Your task to perform on an android device: turn off improve location accuracy Image 0: 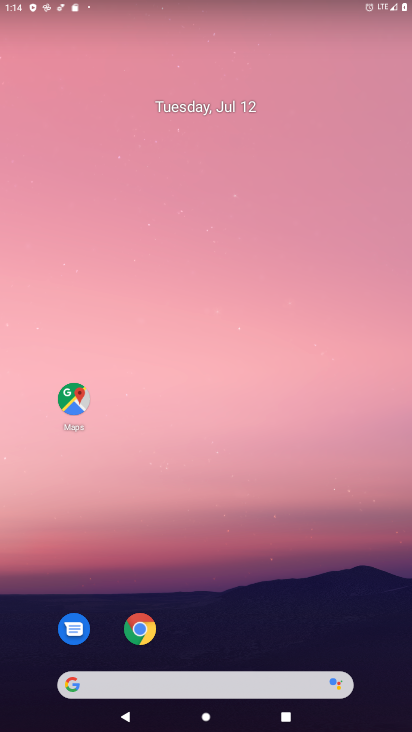
Step 0: drag from (273, 681) to (269, 125)
Your task to perform on an android device: turn off improve location accuracy Image 1: 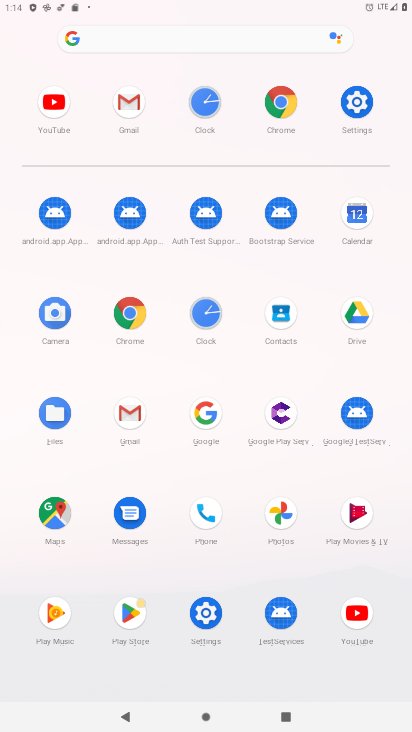
Step 1: click (348, 98)
Your task to perform on an android device: turn off improve location accuracy Image 2: 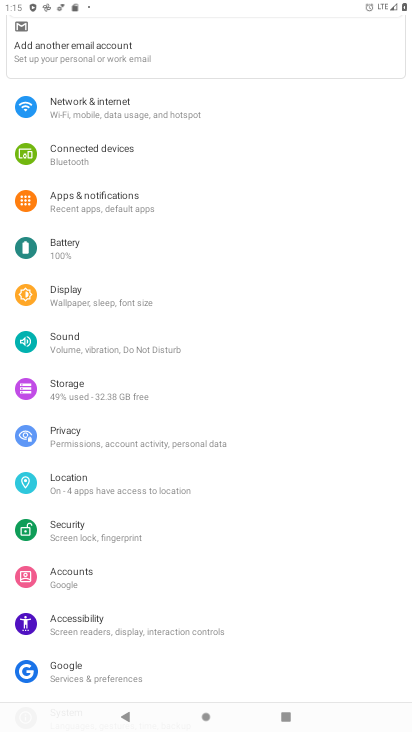
Step 2: click (129, 479)
Your task to perform on an android device: turn off improve location accuracy Image 3: 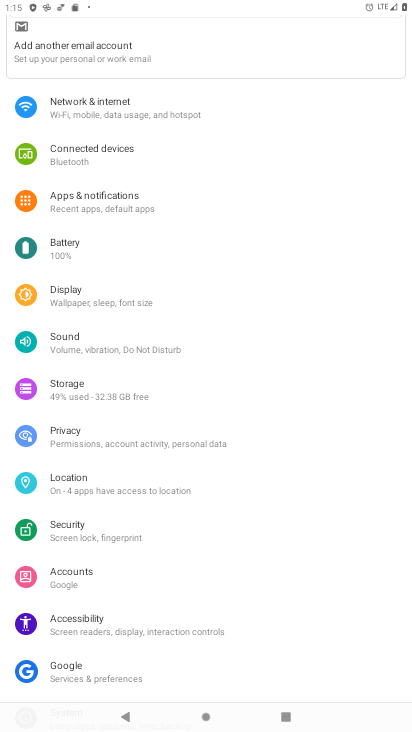
Step 3: click (108, 491)
Your task to perform on an android device: turn off improve location accuracy Image 4: 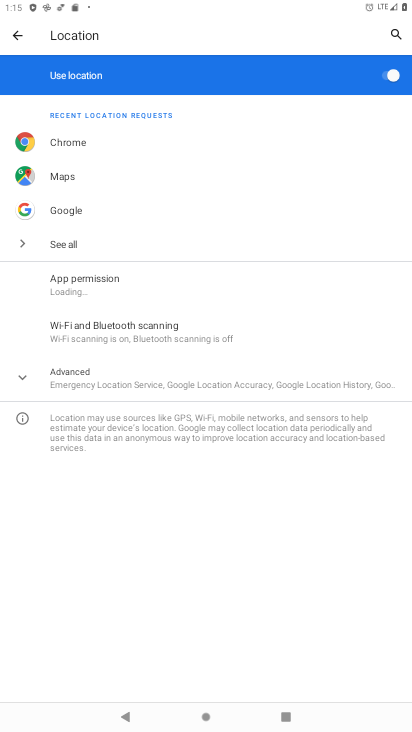
Step 4: click (134, 373)
Your task to perform on an android device: turn off improve location accuracy Image 5: 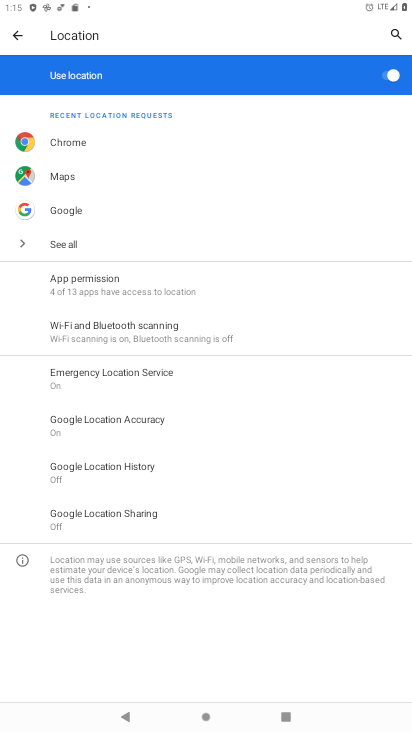
Step 5: click (143, 411)
Your task to perform on an android device: turn off improve location accuracy Image 6: 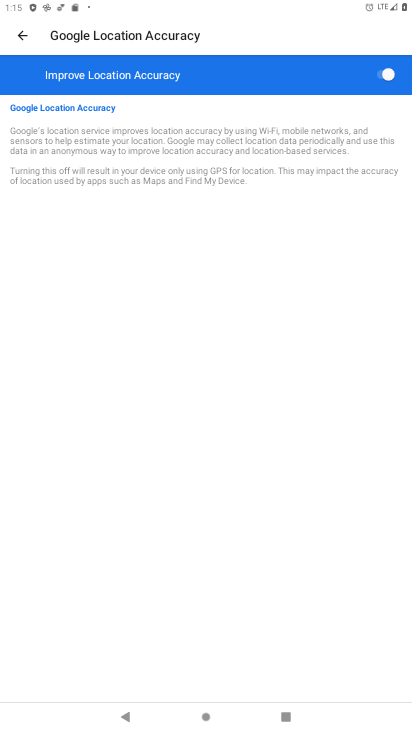
Step 6: click (384, 71)
Your task to perform on an android device: turn off improve location accuracy Image 7: 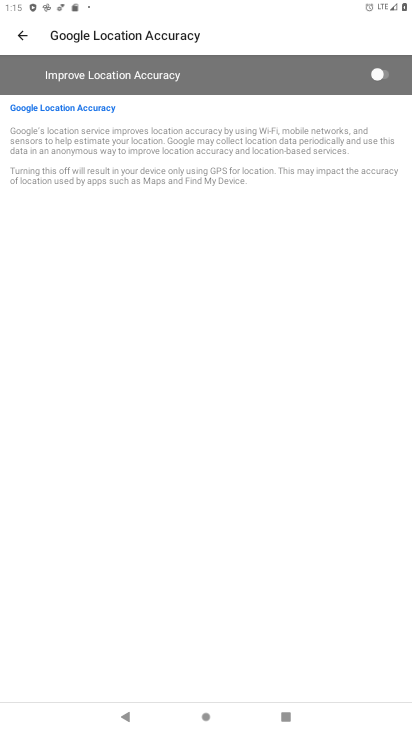
Step 7: task complete